Your task to perform on an android device: make emails show in primary in the gmail app Image 0: 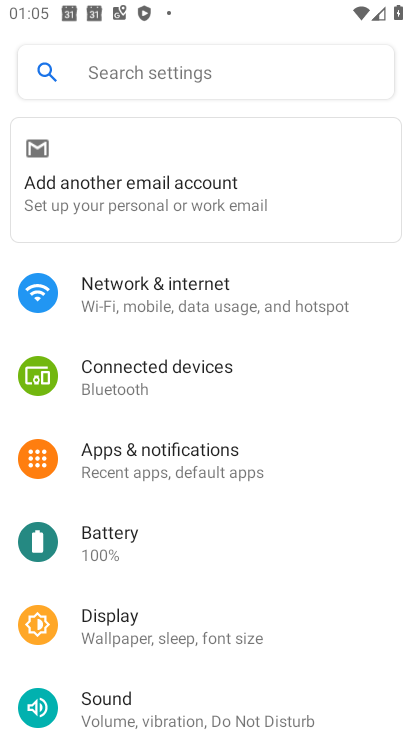
Step 0: press home button
Your task to perform on an android device: make emails show in primary in the gmail app Image 1: 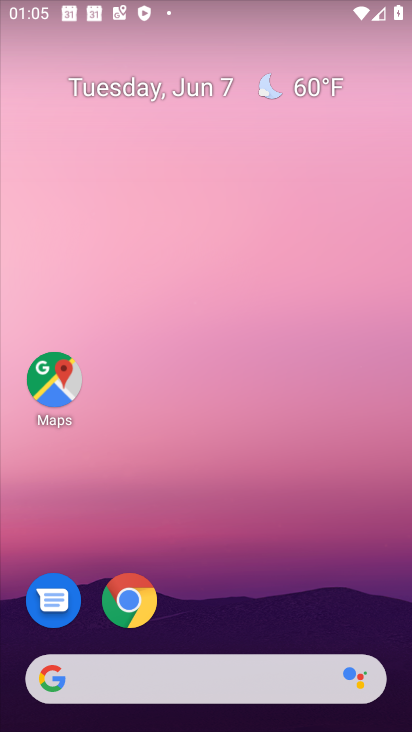
Step 1: drag from (237, 724) to (238, 200)
Your task to perform on an android device: make emails show in primary in the gmail app Image 2: 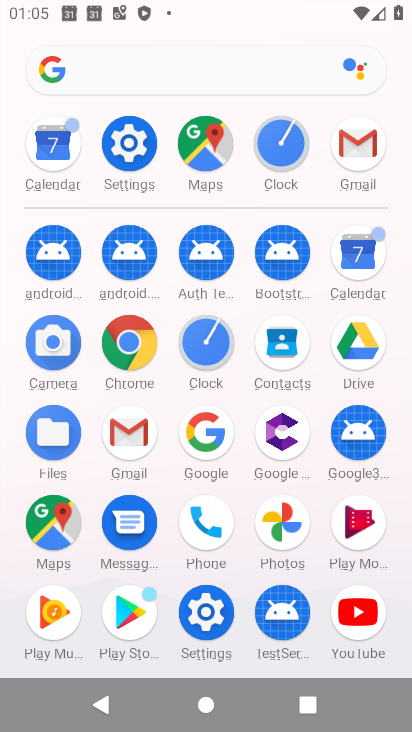
Step 2: click (124, 435)
Your task to perform on an android device: make emails show in primary in the gmail app Image 3: 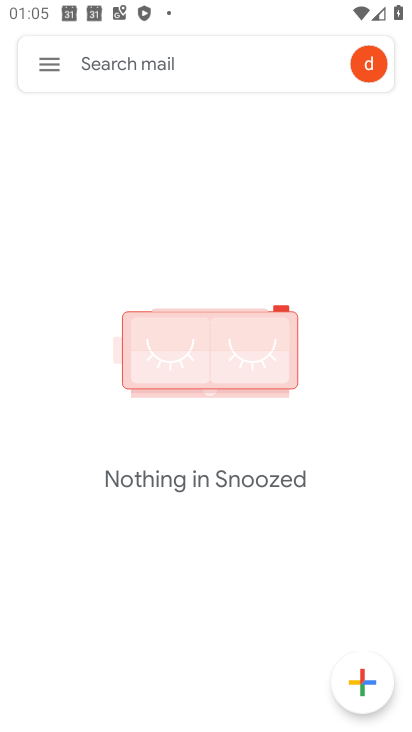
Step 3: click (44, 65)
Your task to perform on an android device: make emails show in primary in the gmail app Image 4: 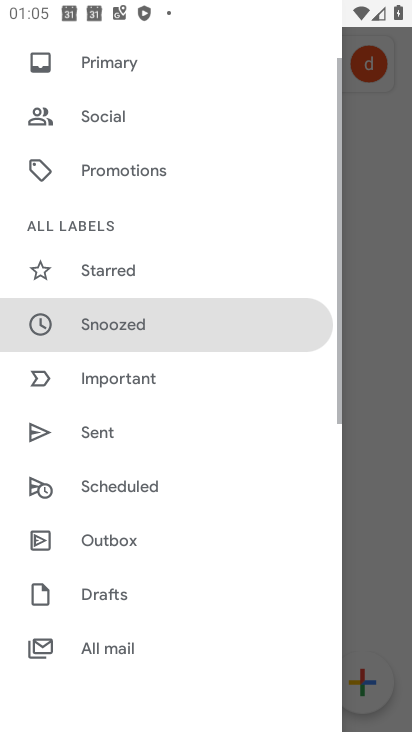
Step 4: drag from (137, 629) to (140, 326)
Your task to perform on an android device: make emails show in primary in the gmail app Image 5: 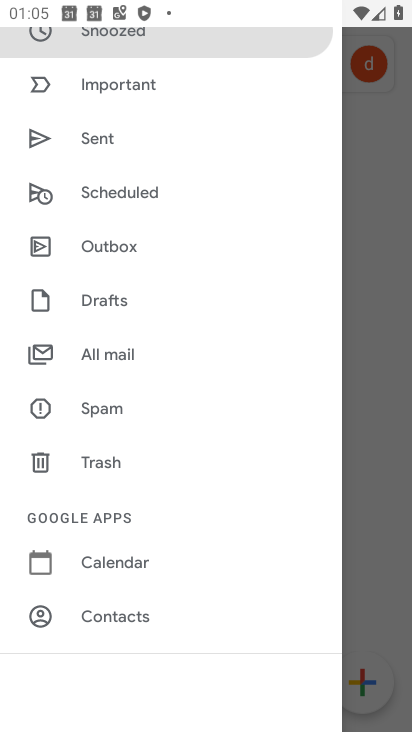
Step 5: drag from (103, 636) to (122, 330)
Your task to perform on an android device: make emails show in primary in the gmail app Image 6: 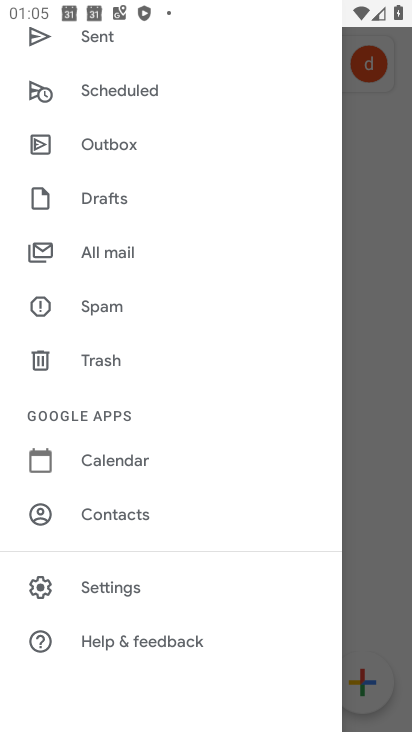
Step 6: click (113, 585)
Your task to perform on an android device: make emails show in primary in the gmail app Image 7: 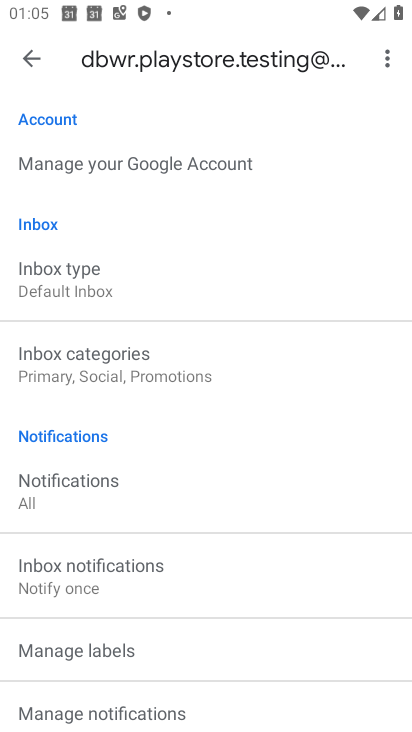
Step 7: click (86, 363)
Your task to perform on an android device: make emails show in primary in the gmail app Image 8: 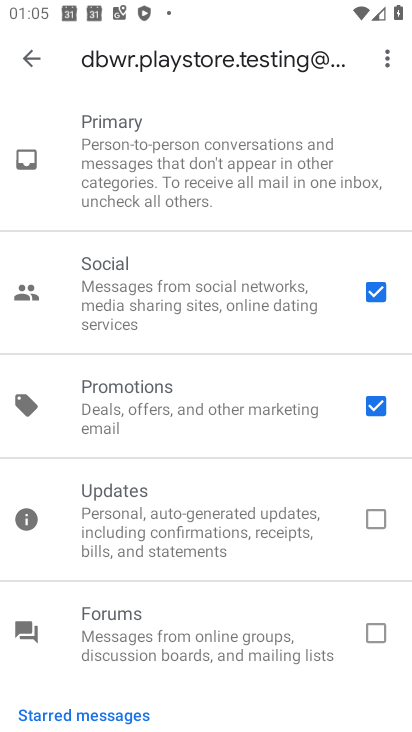
Step 8: click (371, 400)
Your task to perform on an android device: make emails show in primary in the gmail app Image 9: 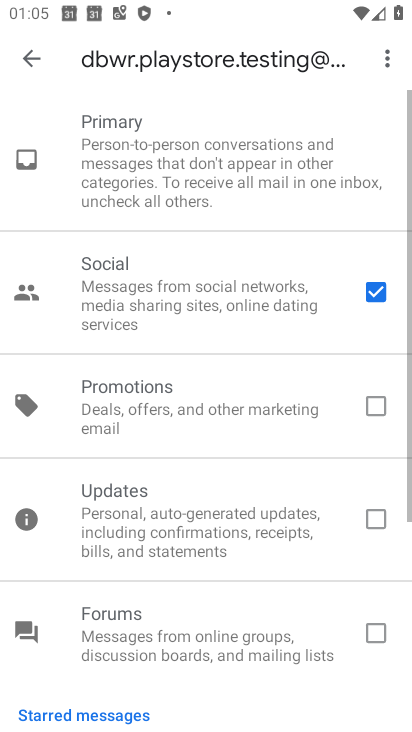
Step 9: click (374, 288)
Your task to perform on an android device: make emails show in primary in the gmail app Image 10: 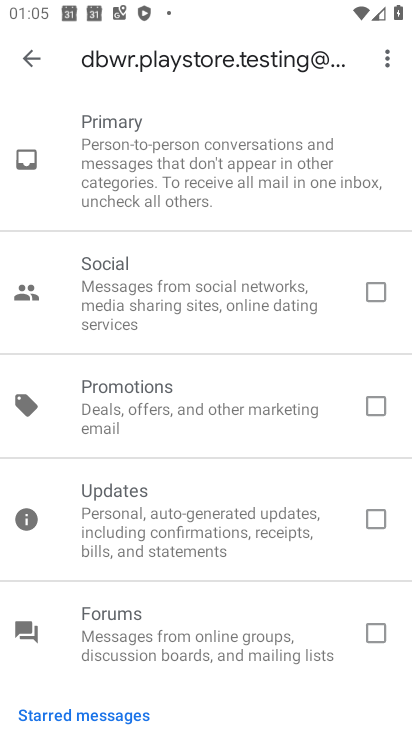
Step 10: click (31, 58)
Your task to perform on an android device: make emails show in primary in the gmail app Image 11: 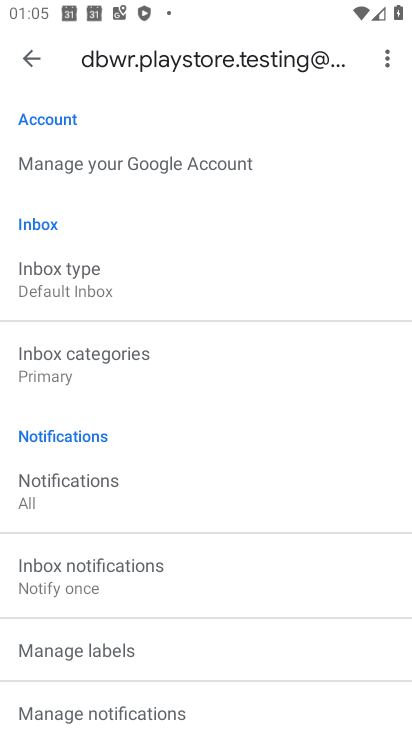
Step 11: task complete